Your task to perform on an android device: Is it going to rain today? Image 0: 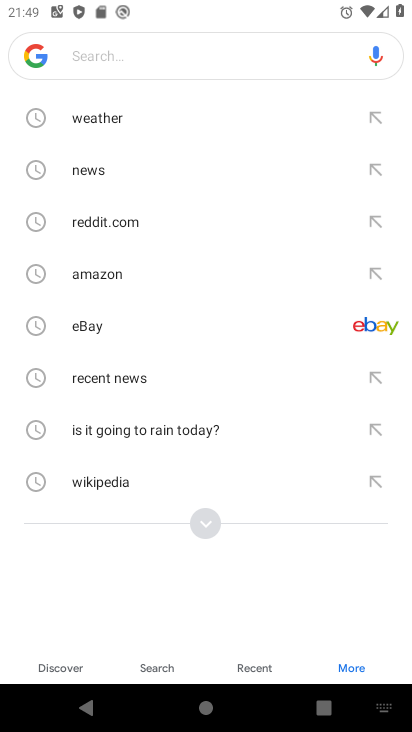
Step 0: click (161, 424)
Your task to perform on an android device: Is it going to rain today? Image 1: 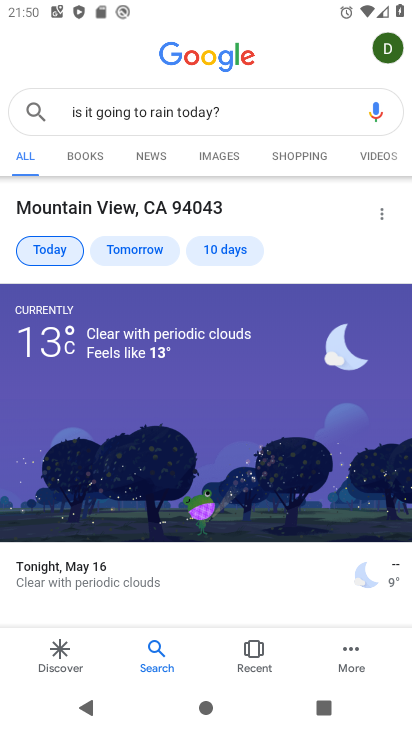
Step 1: task complete